Your task to perform on an android device: Add "logitech g933" to the cart on walmart, then select checkout. Image 0: 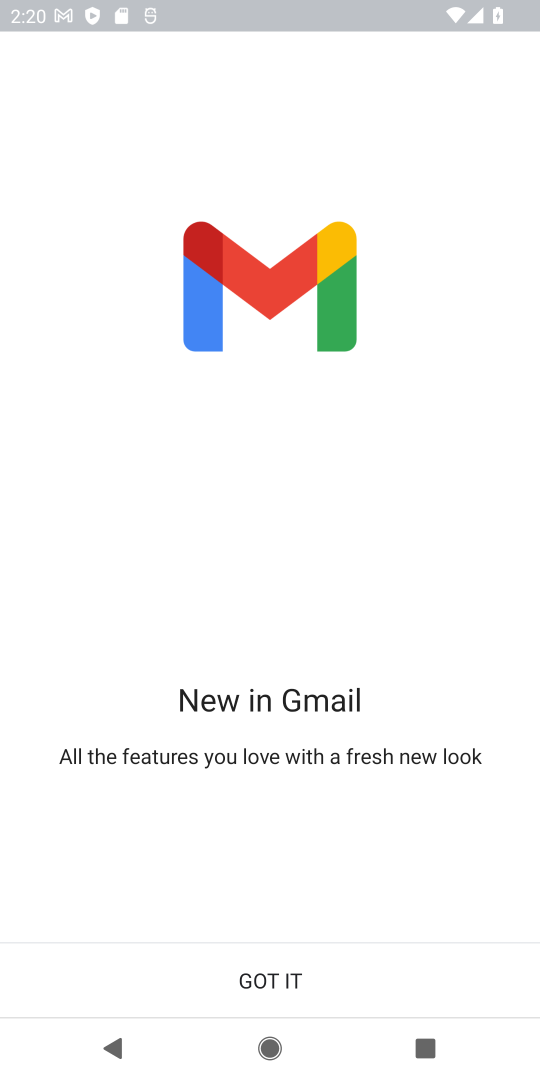
Step 0: press home button
Your task to perform on an android device: Add "logitech g933" to the cart on walmart, then select checkout. Image 1: 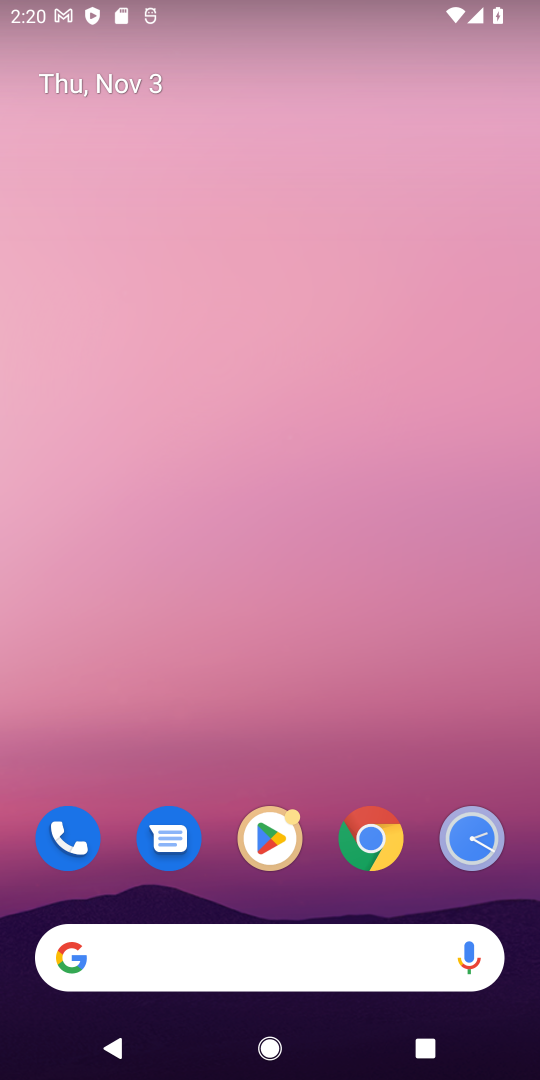
Step 1: drag from (309, 895) to (226, 247)
Your task to perform on an android device: Add "logitech g933" to the cart on walmart, then select checkout. Image 2: 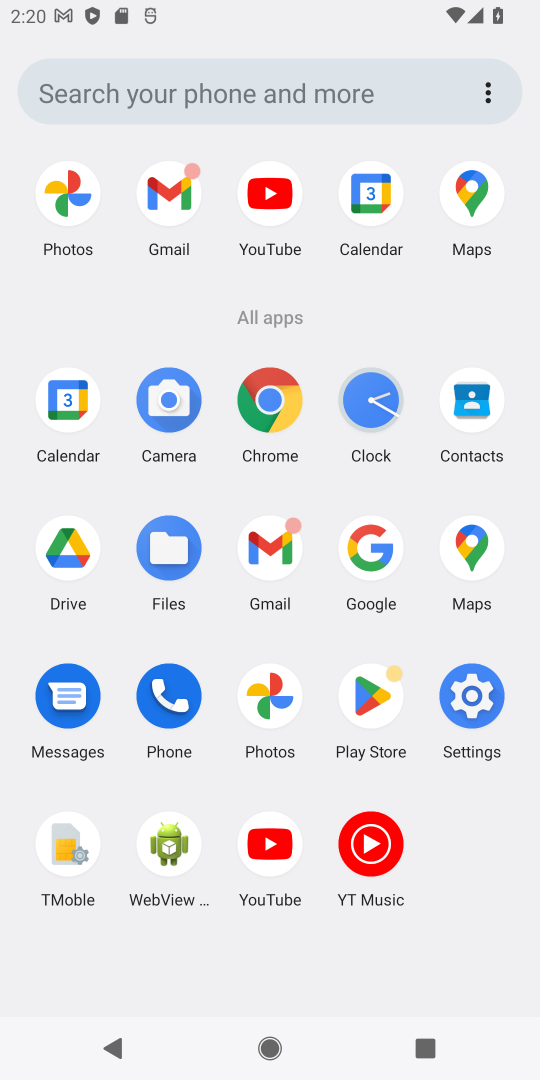
Step 2: click (273, 409)
Your task to perform on an android device: Add "logitech g933" to the cart on walmart, then select checkout. Image 3: 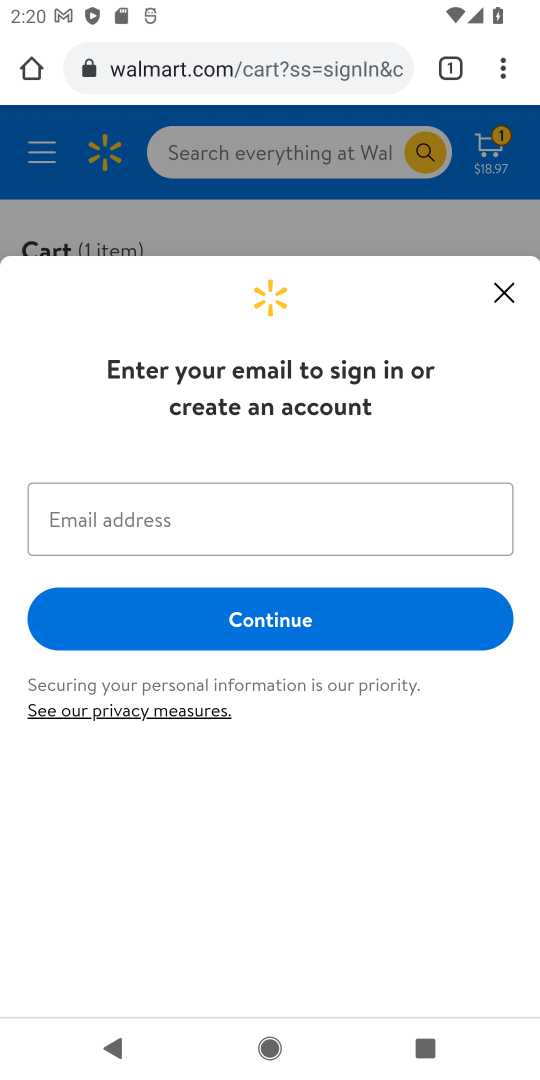
Step 3: click (496, 291)
Your task to perform on an android device: Add "logitech g933" to the cart on walmart, then select checkout. Image 4: 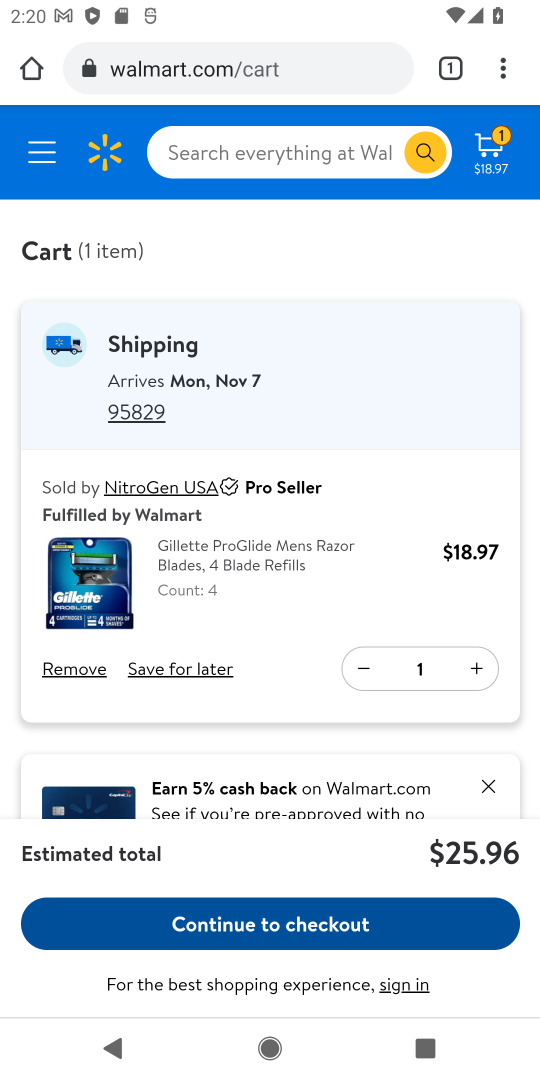
Step 4: click (303, 151)
Your task to perform on an android device: Add "logitech g933" to the cart on walmart, then select checkout. Image 5: 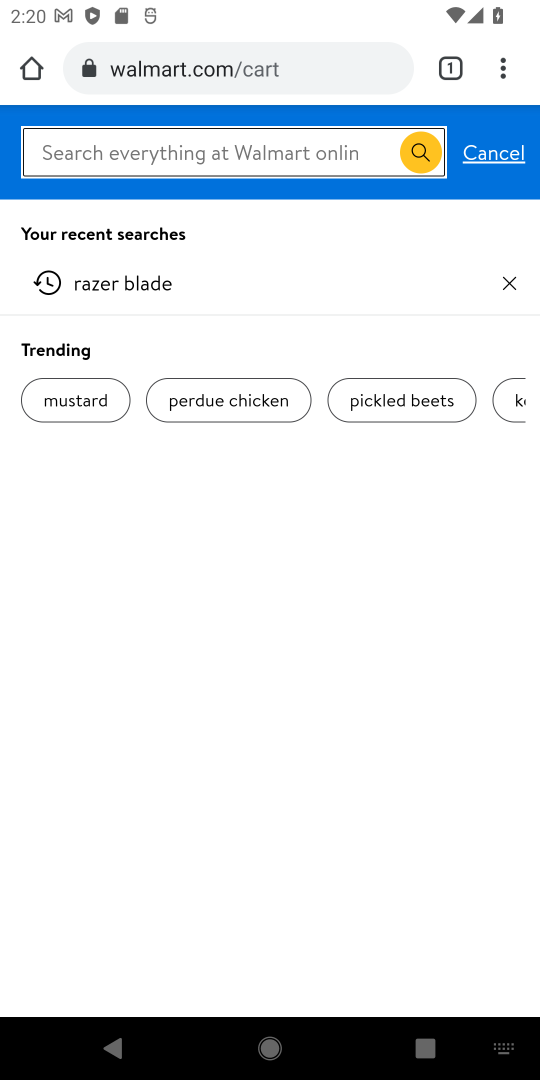
Step 5: type "logitech g933"
Your task to perform on an android device: Add "logitech g933" to the cart on walmart, then select checkout. Image 6: 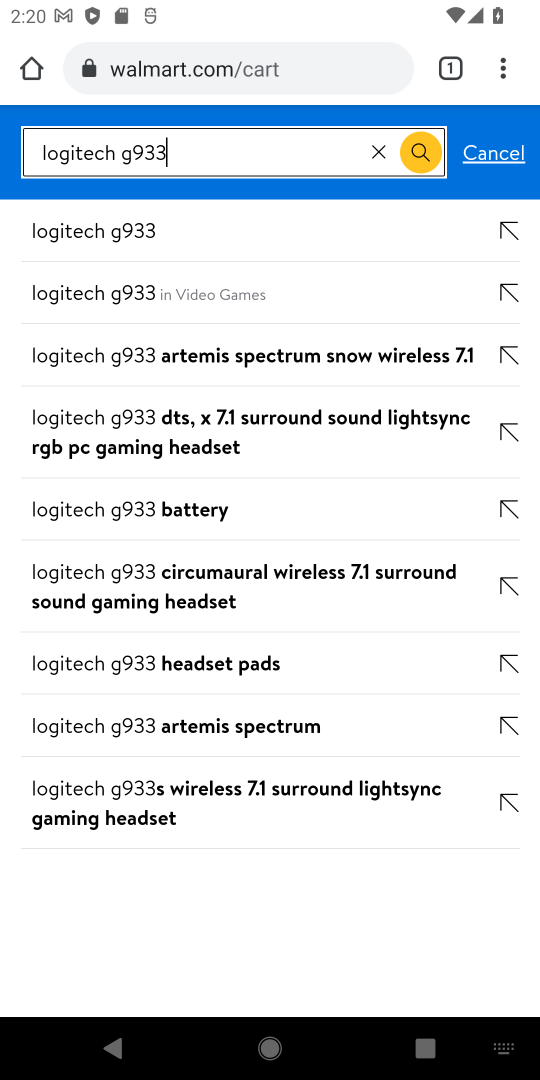
Step 6: press enter
Your task to perform on an android device: Add "logitech g933" to the cart on walmart, then select checkout. Image 7: 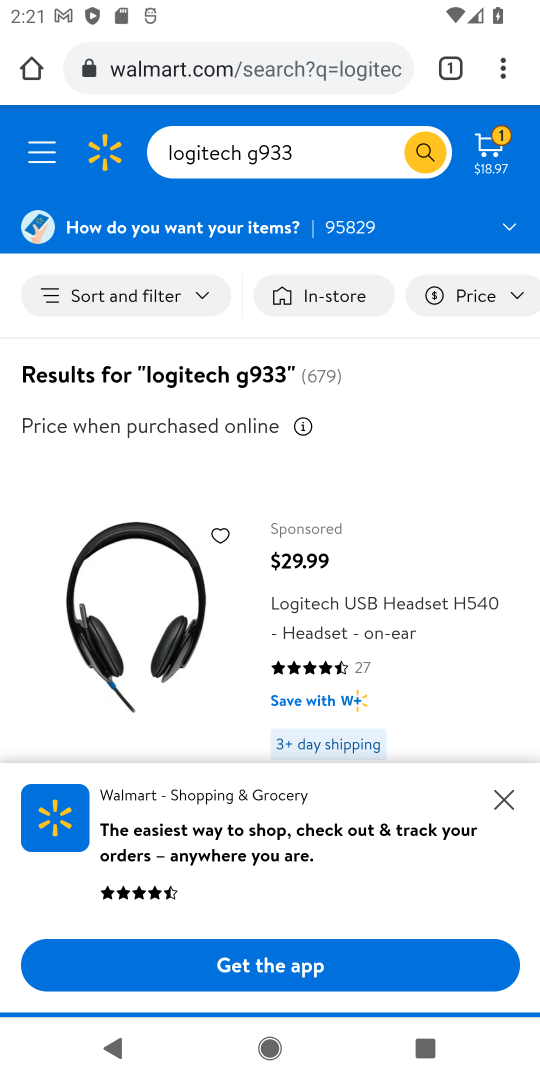
Step 7: drag from (372, 685) to (443, 27)
Your task to perform on an android device: Add "logitech g933" to the cart on walmart, then select checkout. Image 8: 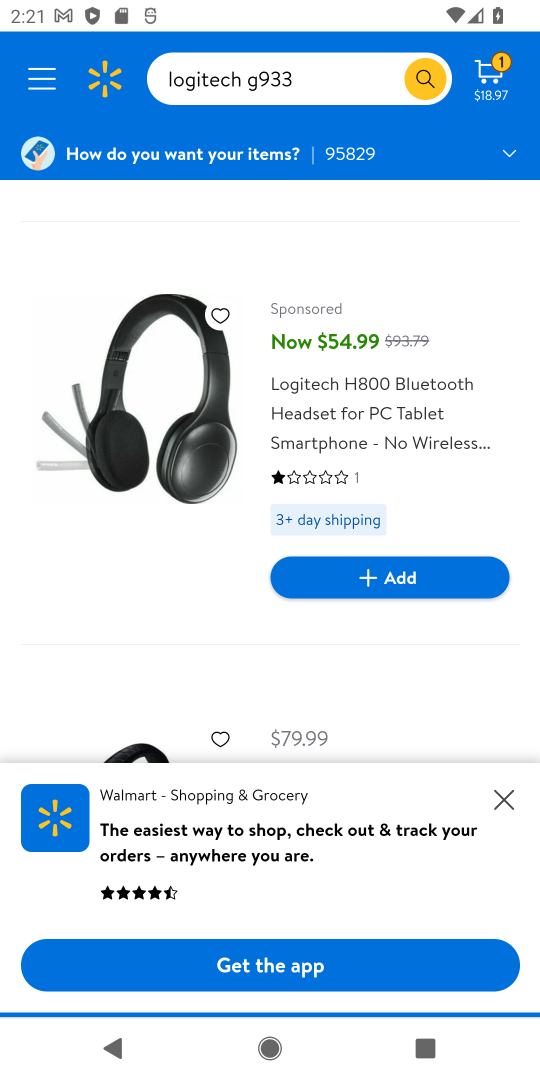
Step 8: drag from (269, 760) to (255, 154)
Your task to perform on an android device: Add "logitech g933" to the cart on walmart, then select checkout. Image 9: 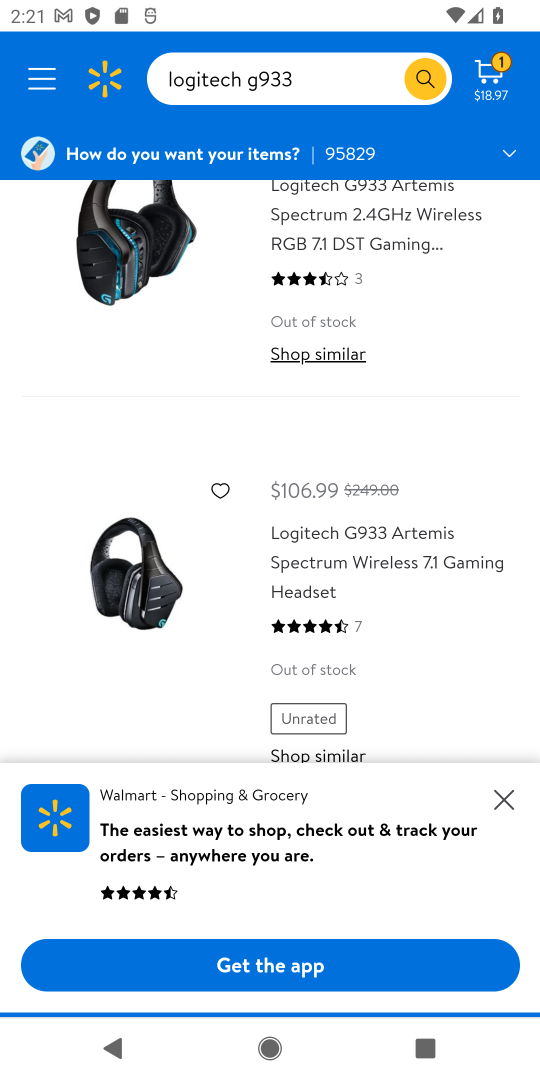
Step 9: drag from (294, 388) to (259, 607)
Your task to perform on an android device: Add "logitech g933" to the cart on walmart, then select checkout. Image 10: 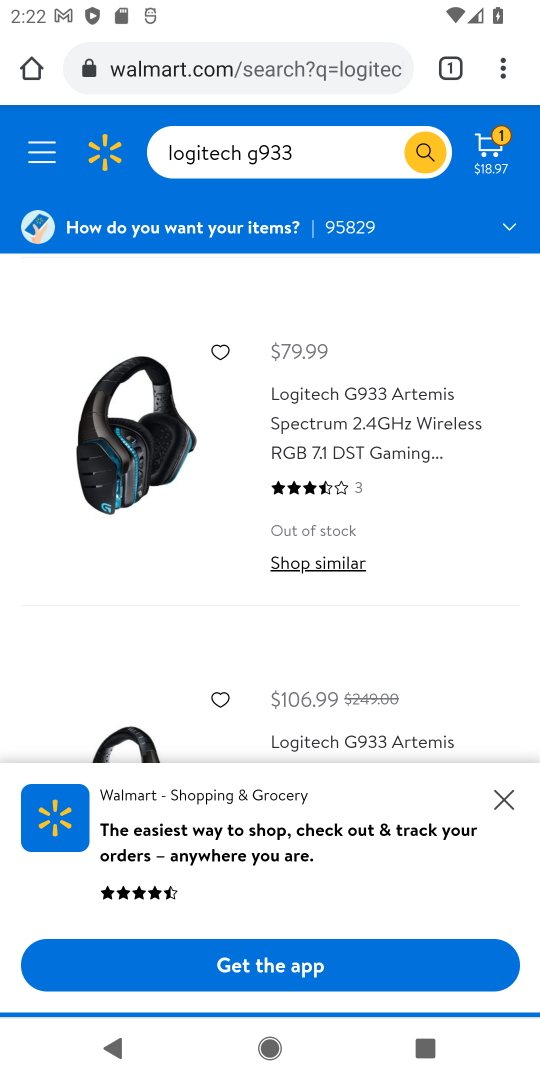
Step 10: drag from (336, 349) to (315, 571)
Your task to perform on an android device: Add "logitech g933" to the cart on walmart, then select checkout. Image 11: 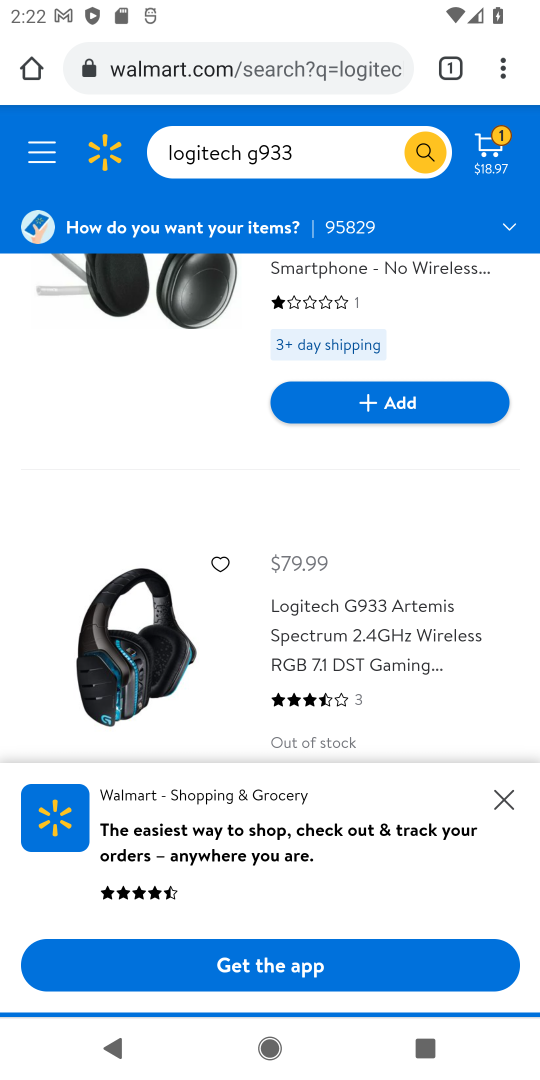
Step 11: drag from (163, 431) to (260, 220)
Your task to perform on an android device: Add "logitech g933" to the cart on walmart, then select checkout. Image 12: 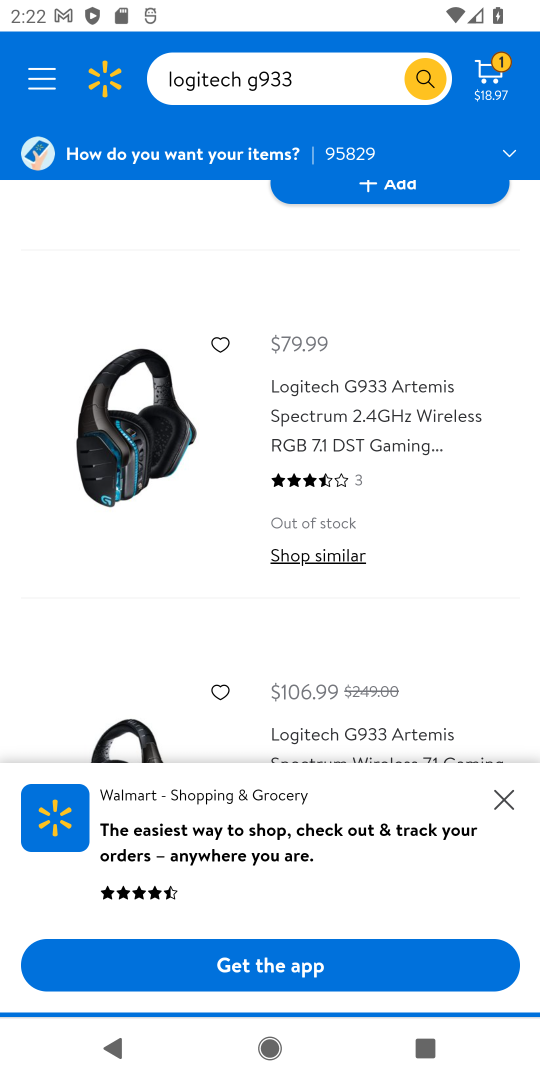
Step 12: click (342, 412)
Your task to perform on an android device: Add "logitech g933" to the cart on walmart, then select checkout. Image 13: 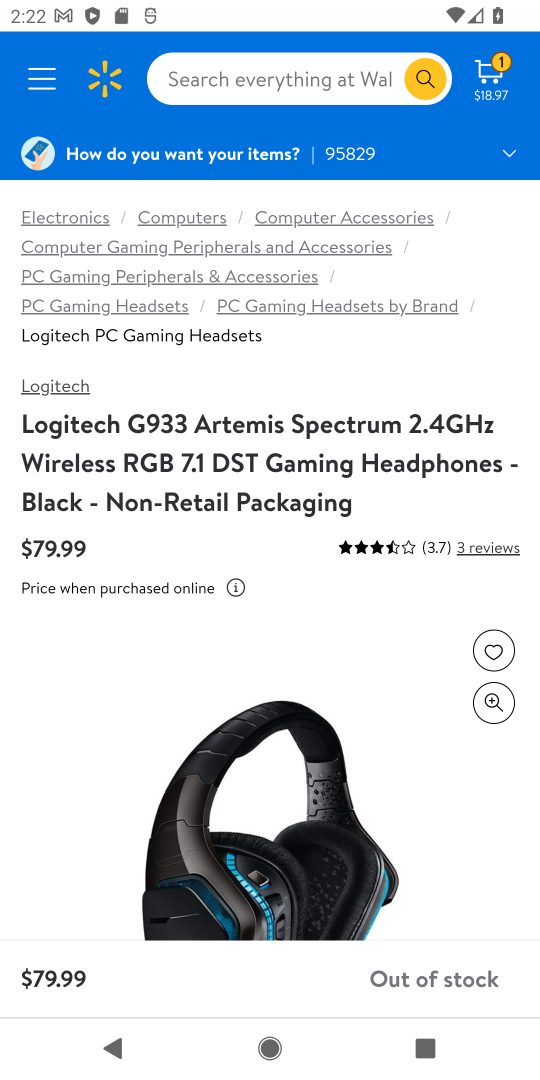
Step 13: drag from (322, 703) to (353, 289)
Your task to perform on an android device: Add "logitech g933" to the cart on walmart, then select checkout. Image 14: 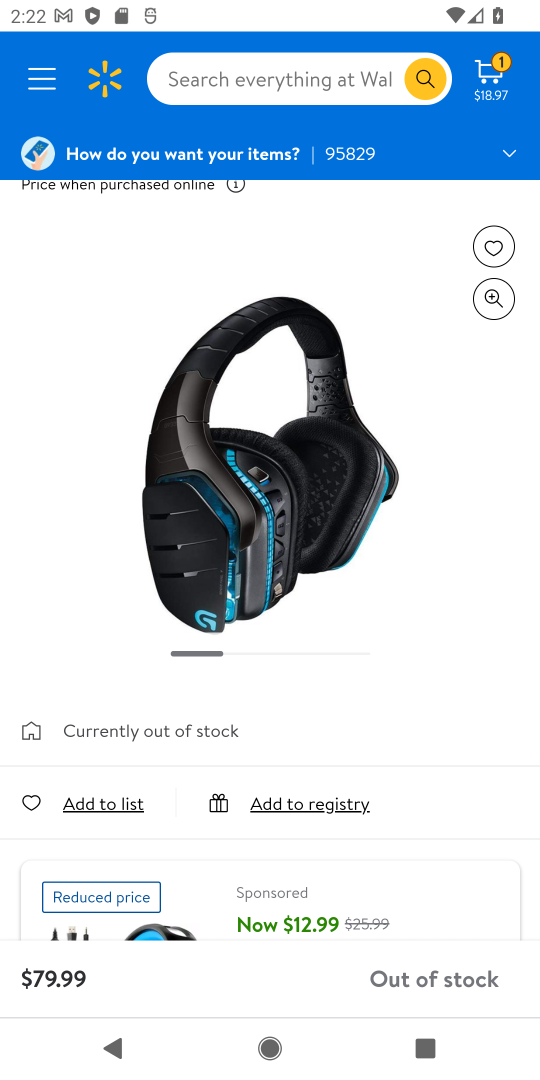
Step 14: drag from (238, 774) to (351, 343)
Your task to perform on an android device: Add "logitech g933" to the cart on walmart, then select checkout. Image 15: 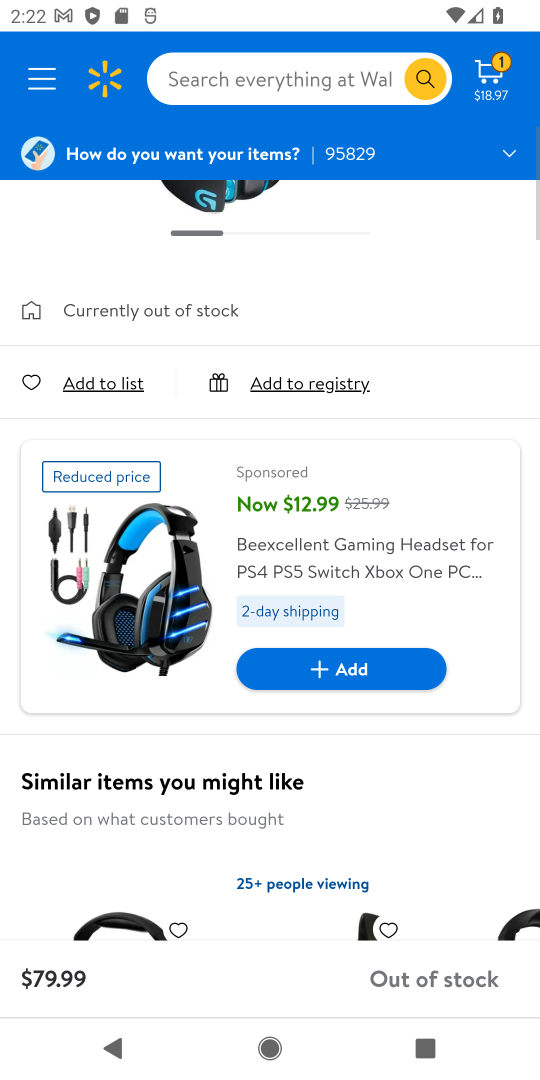
Step 15: drag from (368, 766) to (308, 840)
Your task to perform on an android device: Add "logitech g933" to the cart on walmart, then select checkout. Image 16: 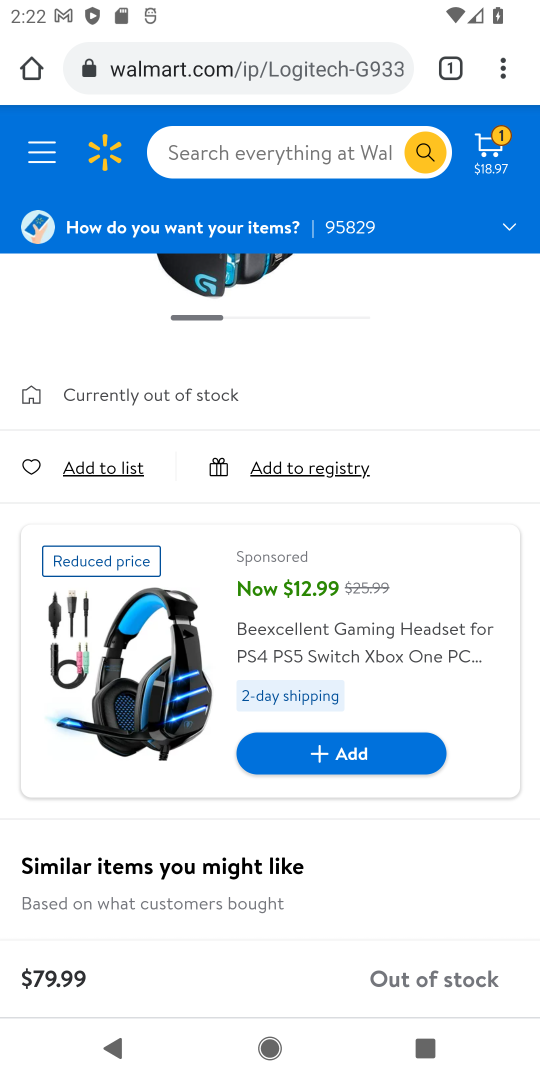
Step 16: drag from (328, 399) to (263, 883)
Your task to perform on an android device: Add "logitech g933" to the cart on walmart, then select checkout. Image 17: 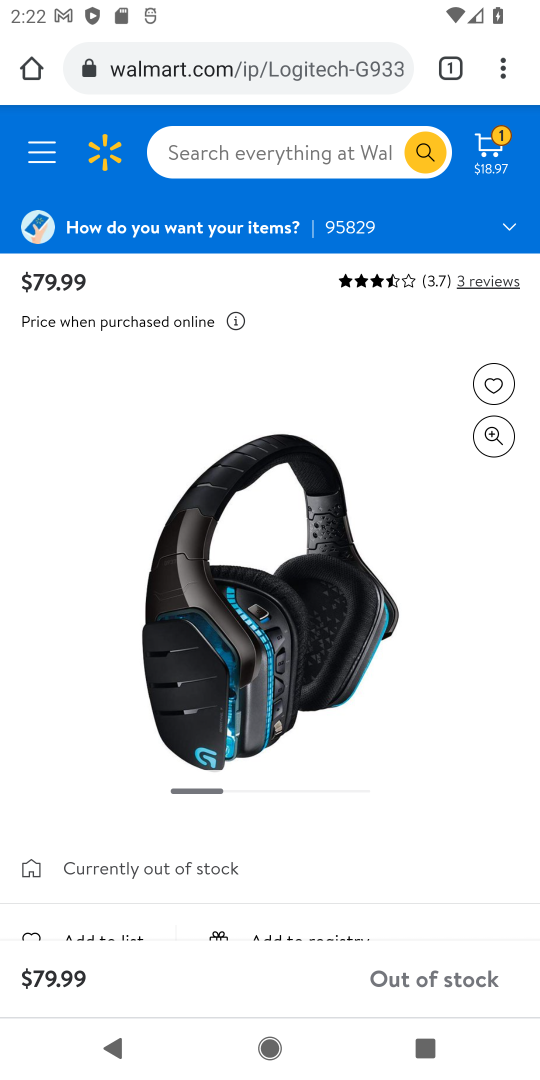
Step 17: drag from (263, 377) to (202, 608)
Your task to perform on an android device: Add "logitech g933" to the cart on walmart, then select checkout. Image 18: 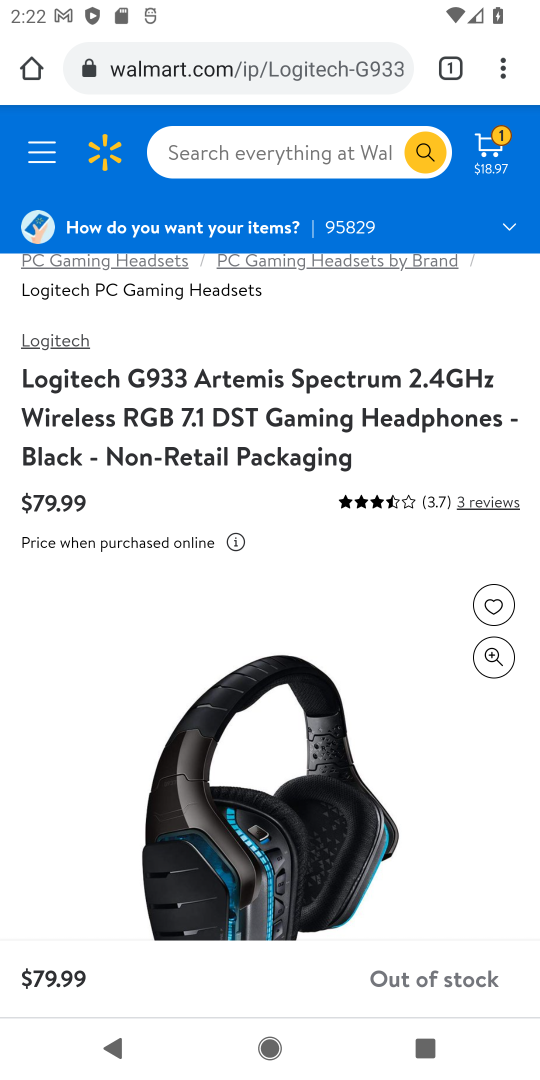
Step 18: drag from (160, 704) to (198, 1058)
Your task to perform on an android device: Add "logitech g933" to the cart on walmart, then select checkout. Image 19: 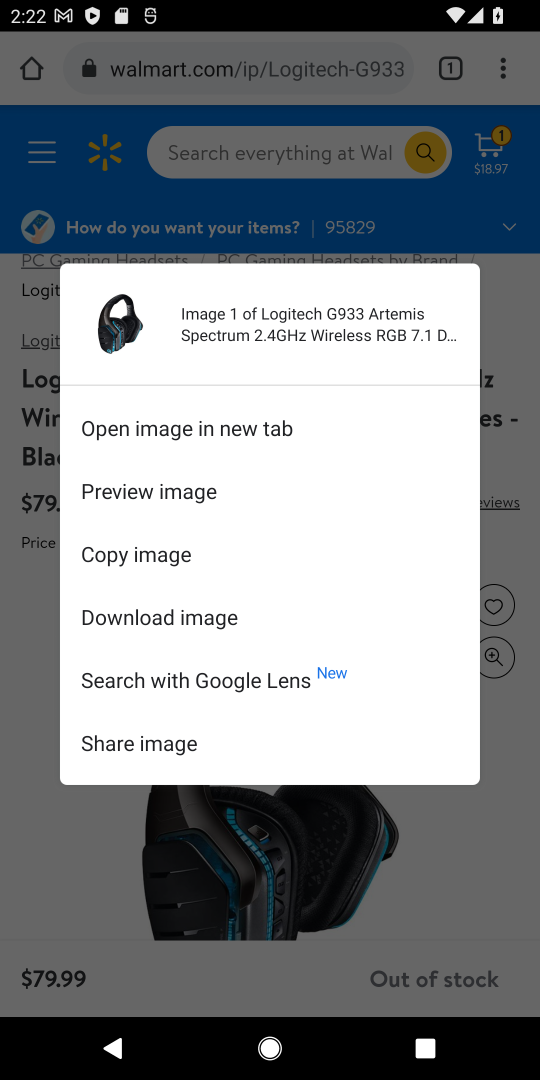
Step 19: click (13, 782)
Your task to perform on an android device: Add "logitech g933" to the cart on walmart, then select checkout. Image 20: 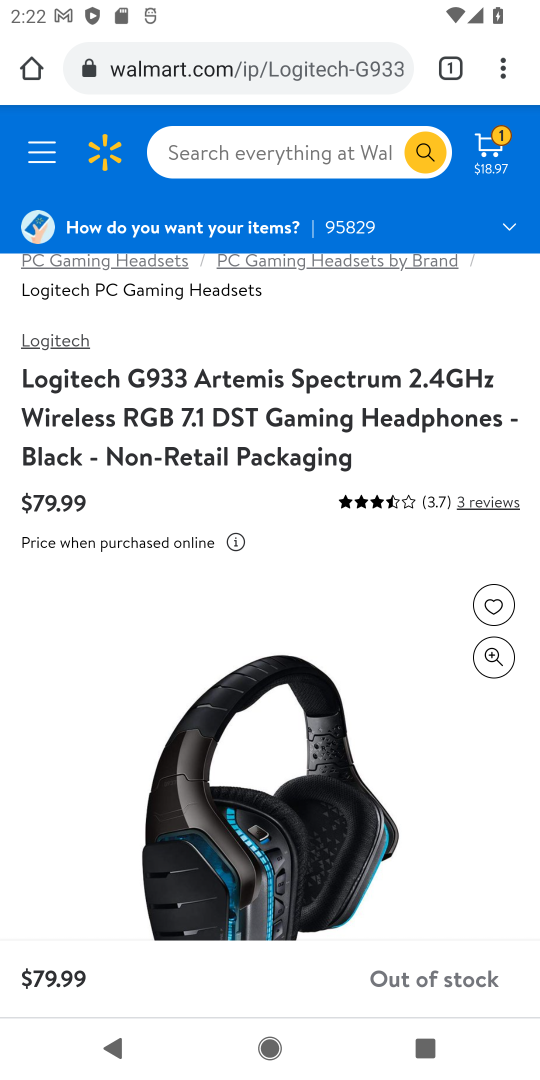
Step 20: task complete